Your task to perform on an android device: search for starred emails in the gmail app Image 0: 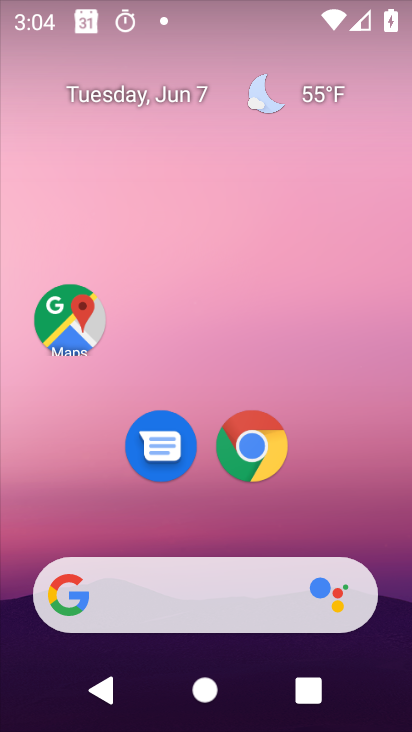
Step 0: drag from (216, 540) to (319, 7)
Your task to perform on an android device: search for starred emails in the gmail app Image 1: 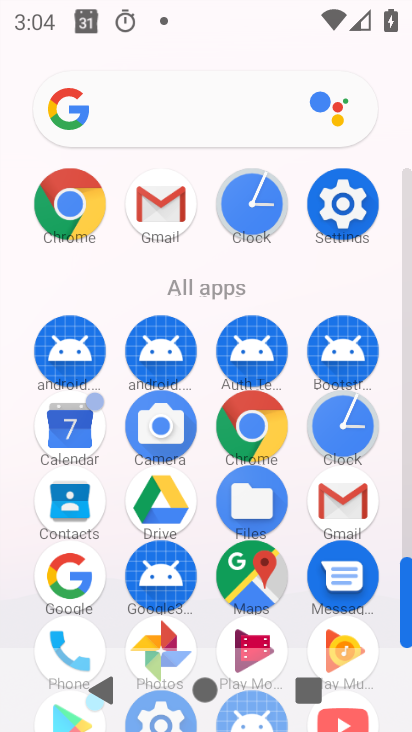
Step 1: click (333, 495)
Your task to perform on an android device: search for starred emails in the gmail app Image 2: 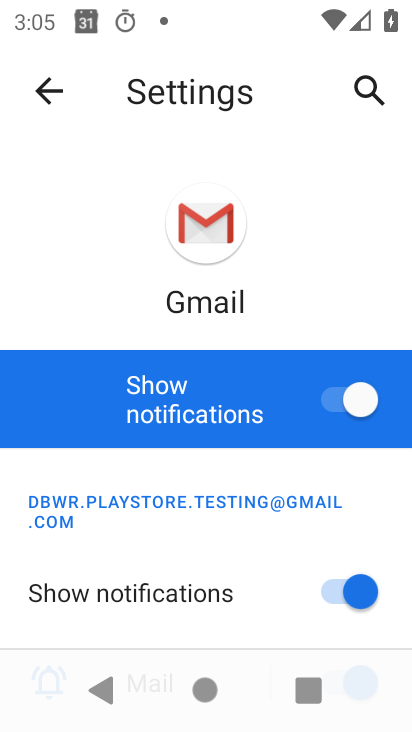
Step 2: click (50, 93)
Your task to perform on an android device: search for starred emails in the gmail app Image 3: 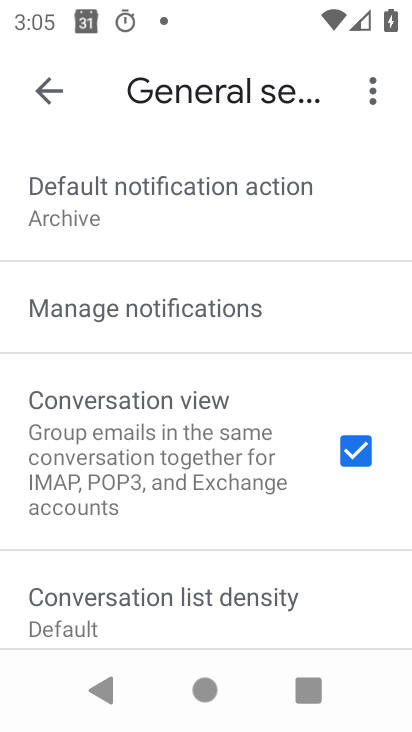
Step 3: click (51, 98)
Your task to perform on an android device: search for starred emails in the gmail app Image 4: 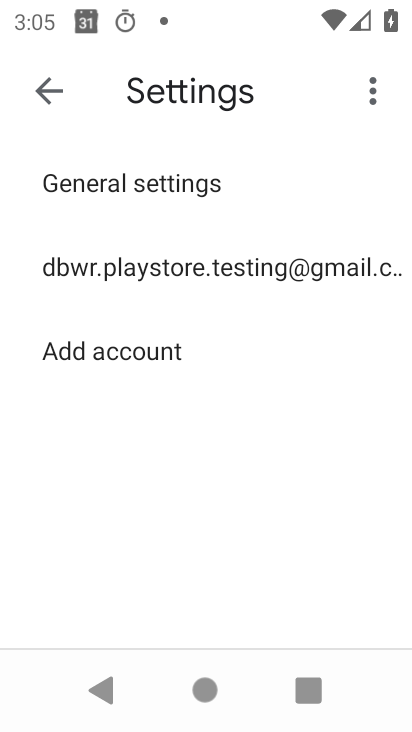
Step 4: click (48, 94)
Your task to perform on an android device: search for starred emails in the gmail app Image 5: 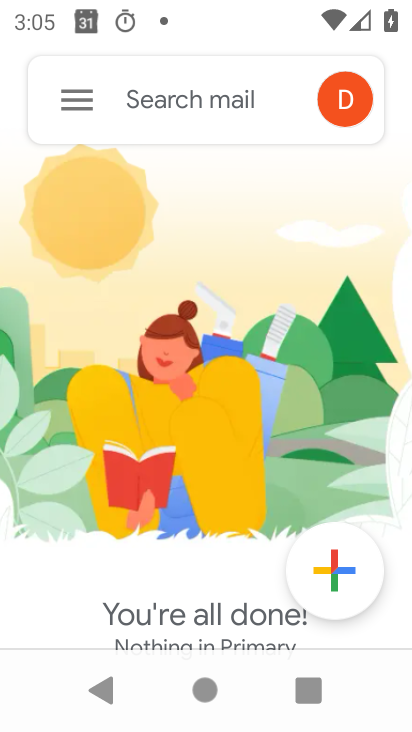
Step 5: click (72, 94)
Your task to perform on an android device: search for starred emails in the gmail app Image 6: 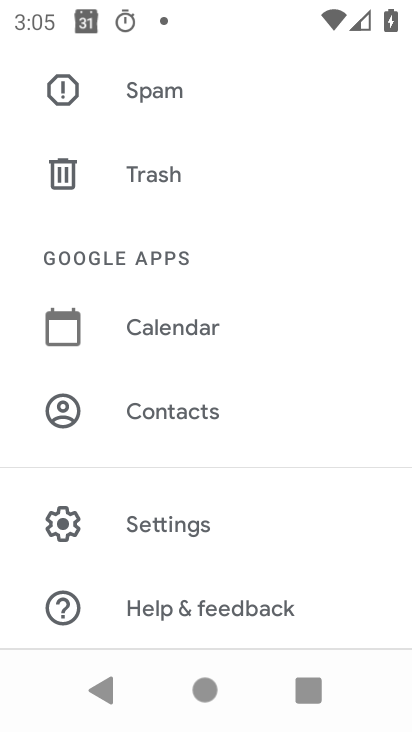
Step 6: drag from (187, 197) to (160, 454)
Your task to perform on an android device: search for starred emails in the gmail app Image 7: 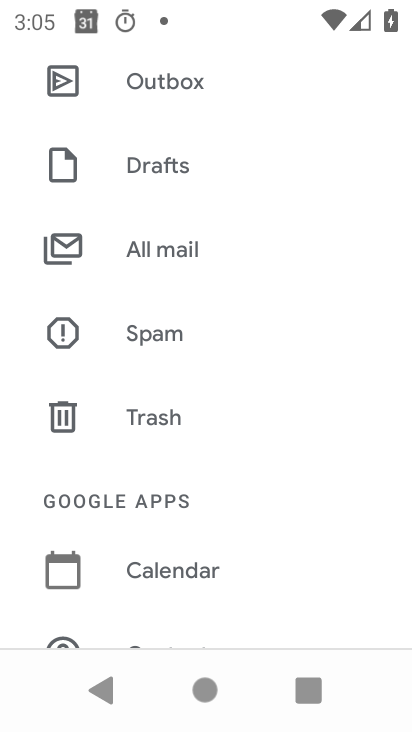
Step 7: drag from (162, 251) to (152, 390)
Your task to perform on an android device: search for starred emails in the gmail app Image 8: 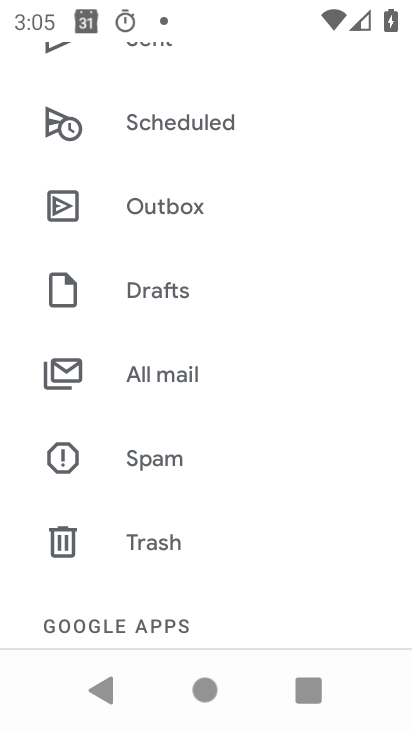
Step 8: drag from (182, 226) to (186, 371)
Your task to perform on an android device: search for starred emails in the gmail app Image 9: 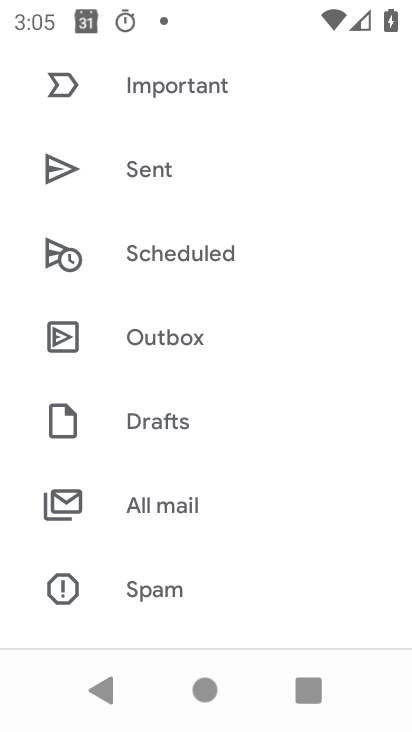
Step 9: drag from (201, 202) to (185, 576)
Your task to perform on an android device: search for starred emails in the gmail app Image 10: 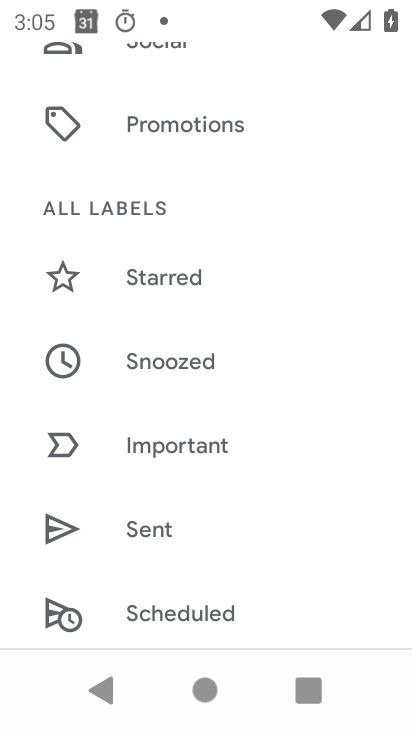
Step 10: click (167, 283)
Your task to perform on an android device: search for starred emails in the gmail app Image 11: 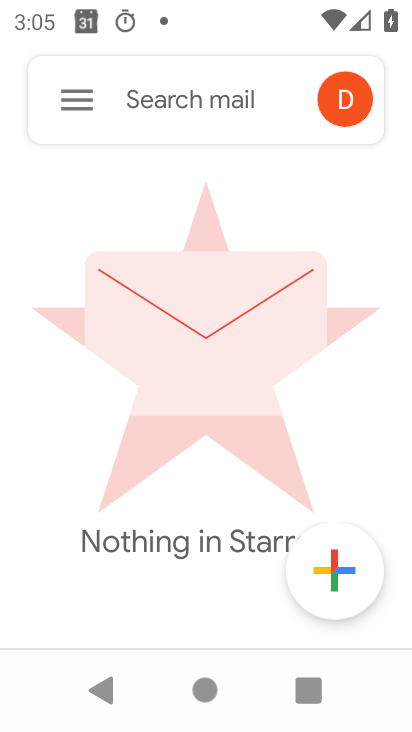
Step 11: task complete